Your task to perform on an android device: add a label to a message in the gmail app Image 0: 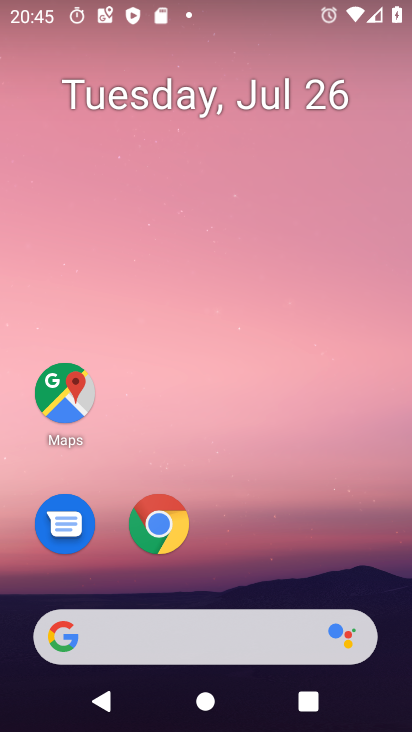
Step 0: drag from (261, 562) to (254, 36)
Your task to perform on an android device: add a label to a message in the gmail app Image 1: 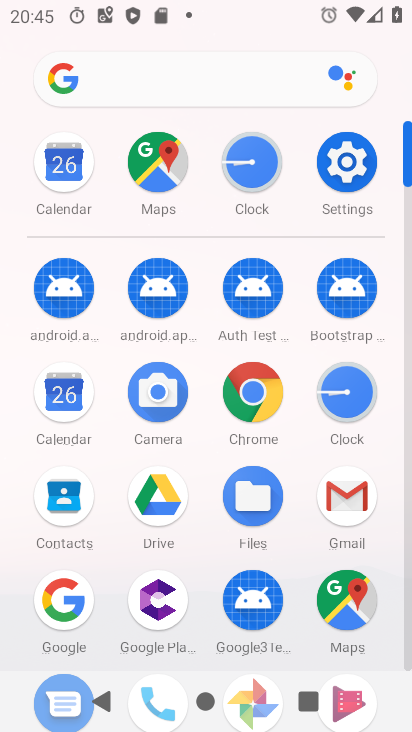
Step 1: click (343, 482)
Your task to perform on an android device: add a label to a message in the gmail app Image 2: 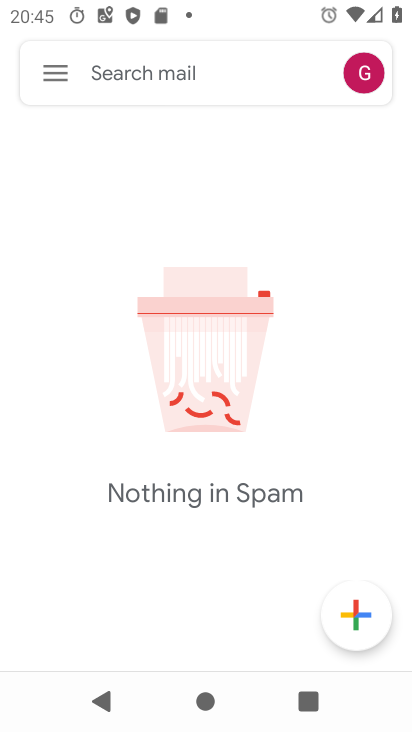
Step 2: click (47, 60)
Your task to perform on an android device: add a label to a message in the gmail app Image 3: 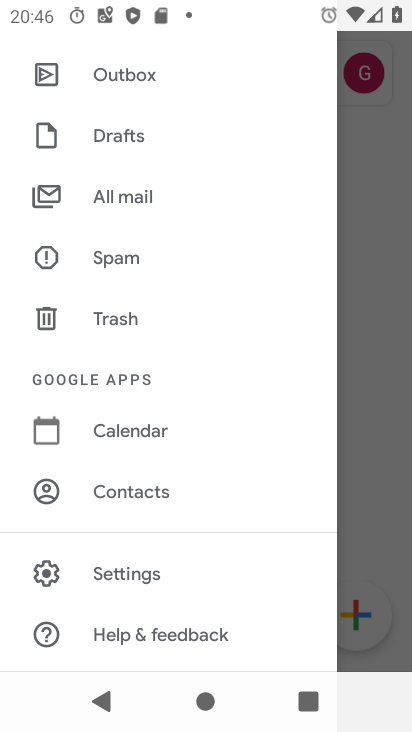
Step 3: click (121, 187)
Your task to perform on an android device: add a label to a message in the gmail app Image 4: 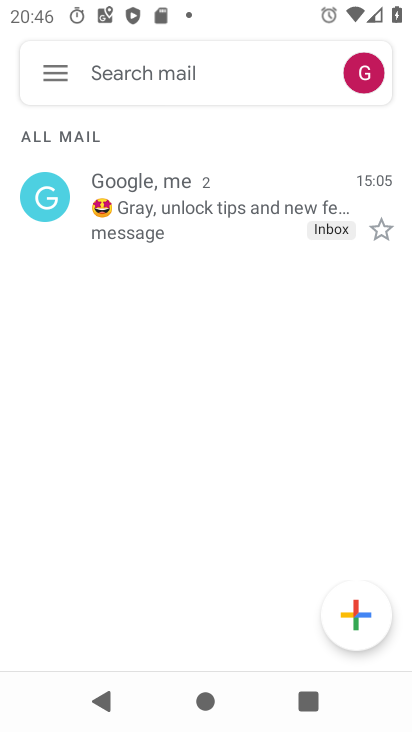
Step 4: click (178, 198)
Your task to perform on an android device: add a label to a message in the gmail app Image 5: 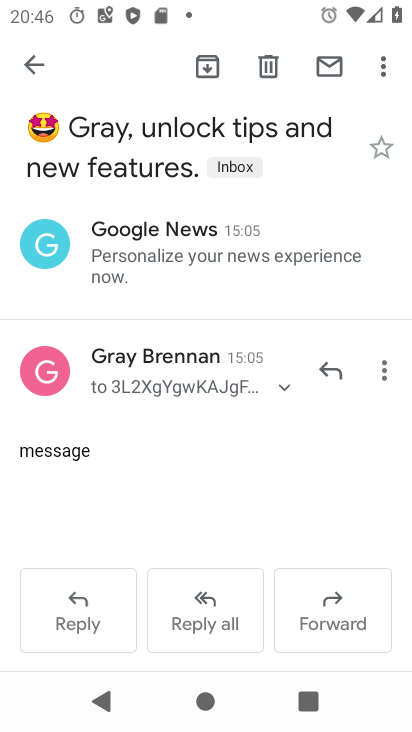
Step 5: click (380, 68)
Your task to perform on an android device: add a label to a message in the gmail app Image 6: 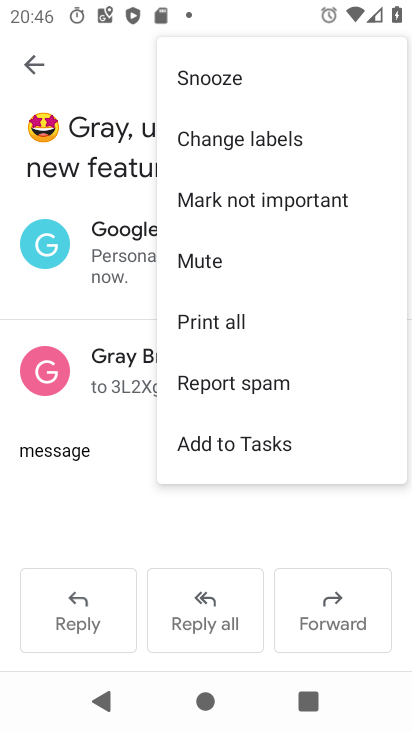
Step 6: click (271, 198)
Your task to perform on an android device: add a label to a message in the gmail app Image 7: 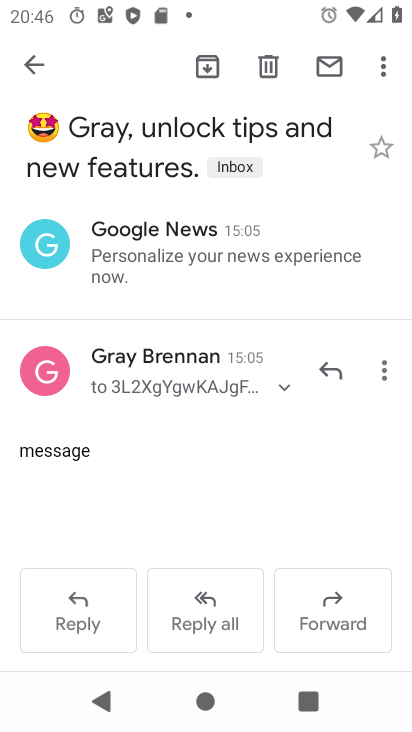
Step 7: task complete